Your task to perform on an android device: Open Android settings Image 0: 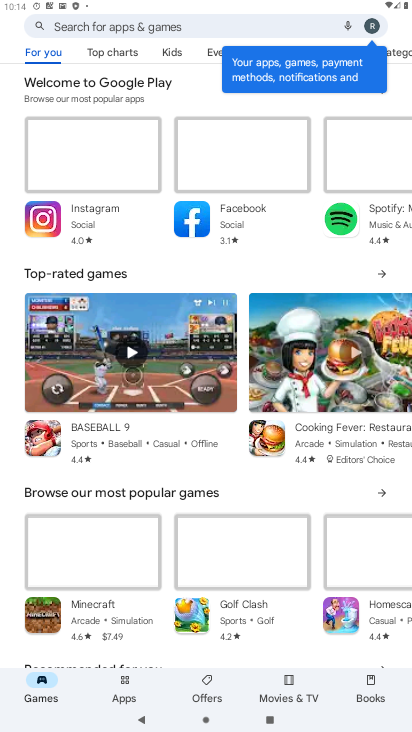
Step 0: press home button
Your task to perform on an android device: Open Android settings Image 1: 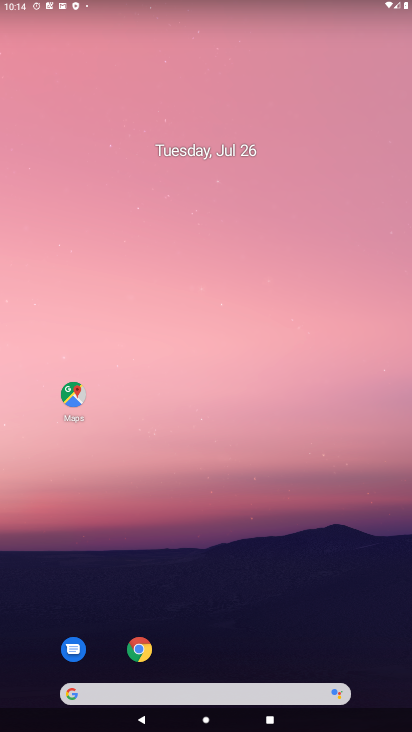
Step 1: drag from (186, 619) to (203, 71)
Your task to perform on an android device: Open Android settings Image 2: 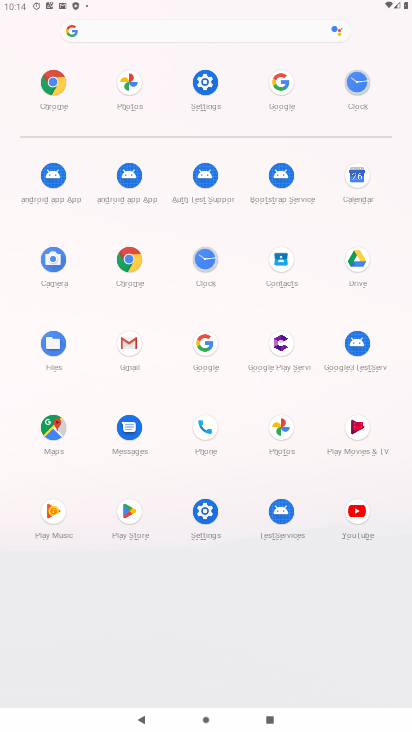
Step 2: click (203, 517)
Your task to perform on an android device: Open Android settings Image 3: 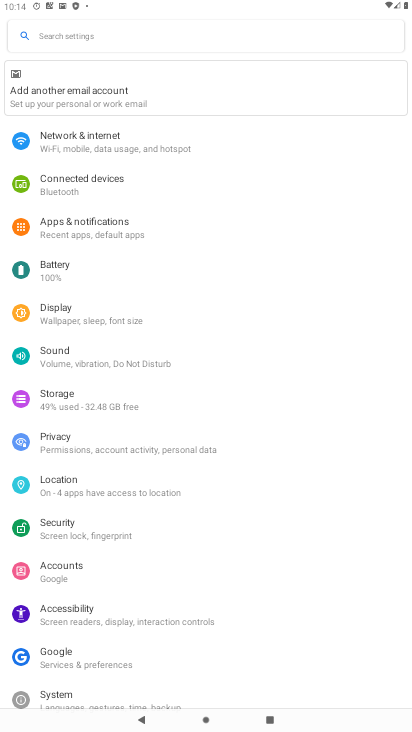
Step 3: drag from (132, 624) to (220, 160)
Your task to perform on an android device: Open Android settings Image 4: 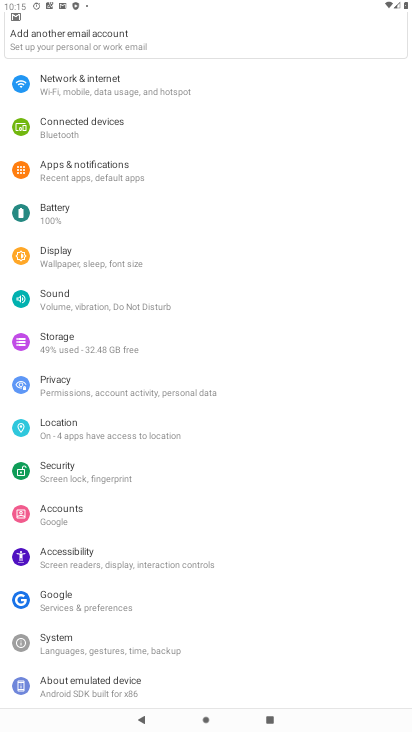
Step 4: click (127, 683)
Your task to perform on an android device: Open Android settings Image 5: 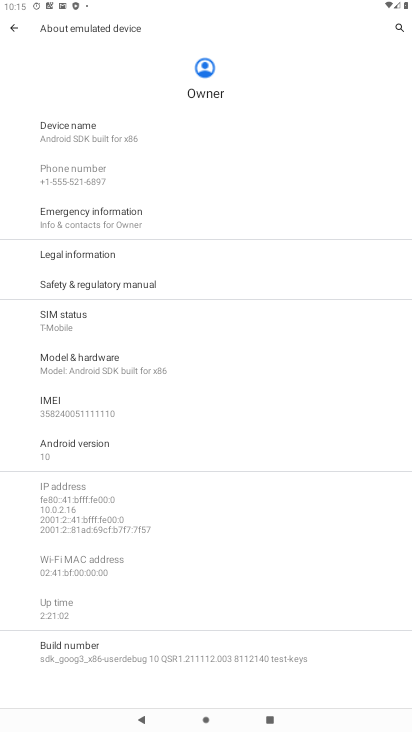
Step 5: click (87, 441)
Your task to perform on an android device: Open Android settings Image 6: 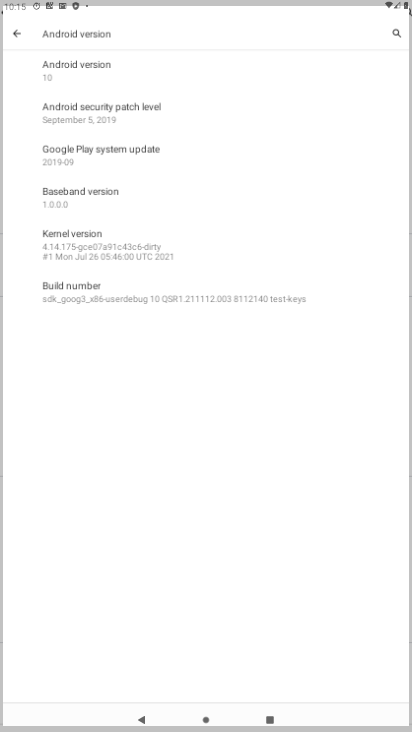
Step 6: task complete